Your task to perform on an android device: change the upload size in google photos Image 0: 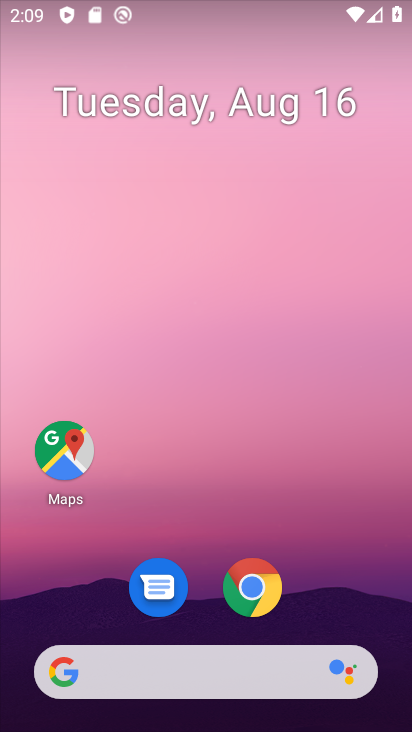
Step 0: drag from (251, 621) to (237, 489)
Your task to perform on an android device: change the upload size in google photos Image 1: 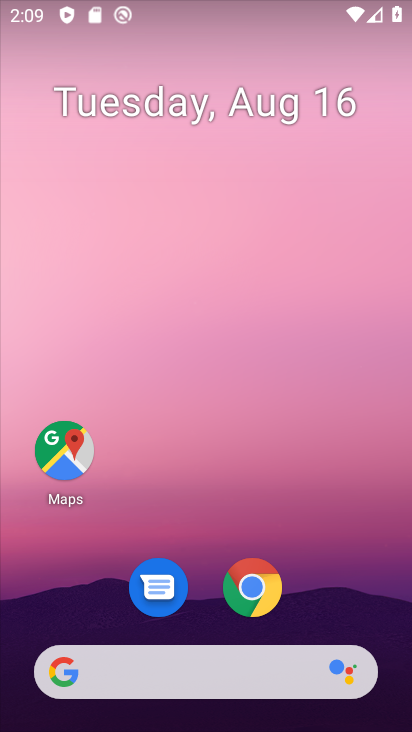
Step 1: drag from (210, 593) to (223, 191)
Your task to perform on an android device: change the upload size in google photos Image 2: 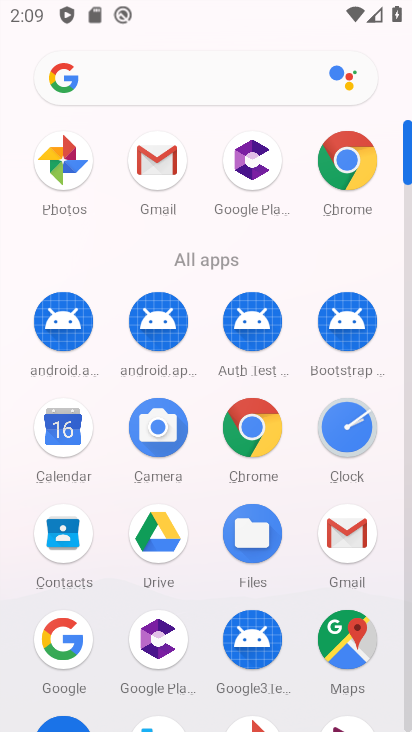
Step 2: drag from (211, 658) to (243, 222)
Your task to perform on an android device: change the upload size in google photos Image 3: 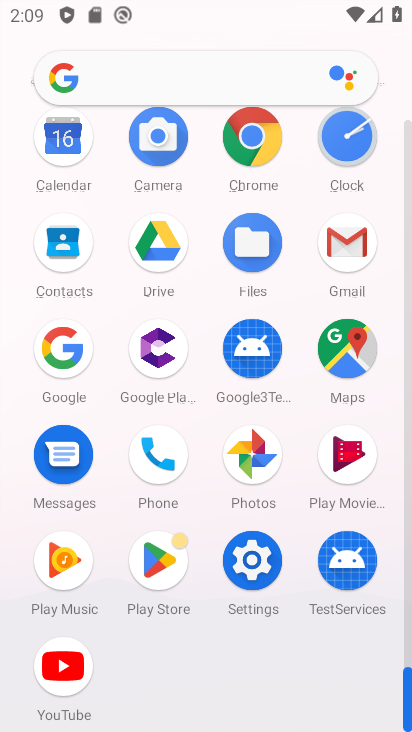
Step 3: click (245, 438)
Your task to perform on an android device: change the upload size in google photos Image 4: 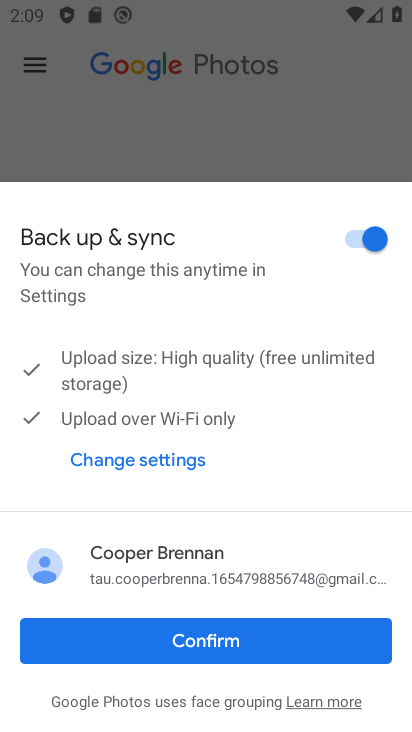
Step 4: click (229, 632)
Your task to perform on an android device: change the upload size in google photos Image 5: 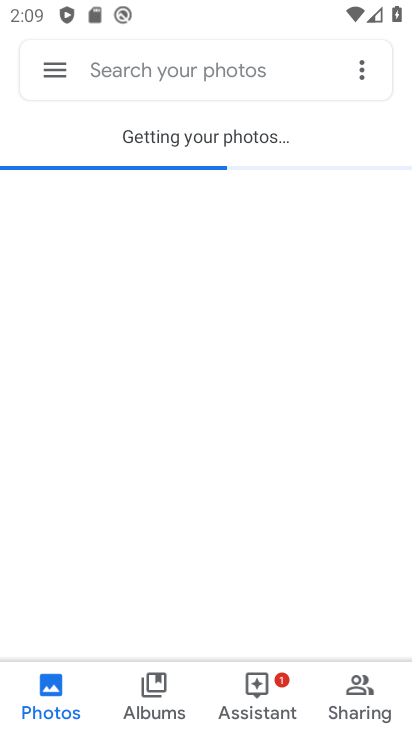
Step 5: click (44, 65)
Your task to perform on an android device: change the upload size in google photos Image 6: 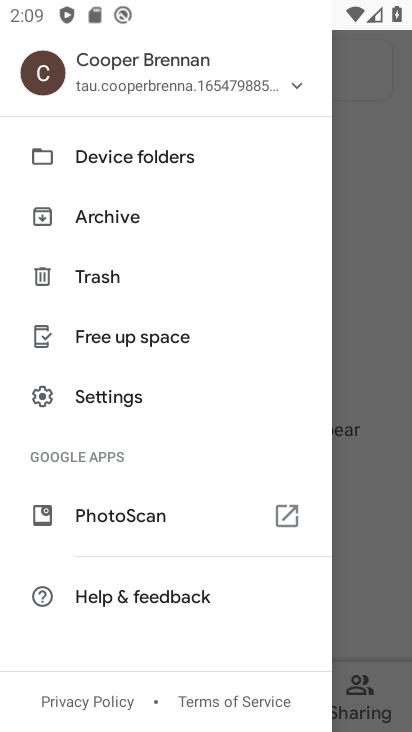
Step 6: click (123, 395)
Your task to perform on an android device: change the upload size in google photos Image 7: 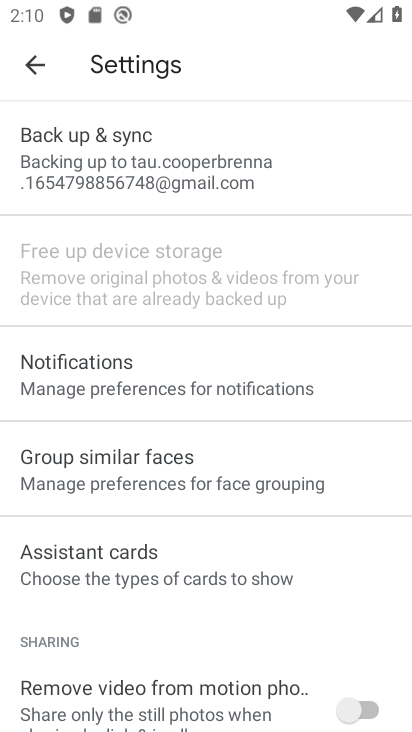
Step 7: click (160, 170)
Your task to perform on an android device: change the upload size in google photos Image 8: 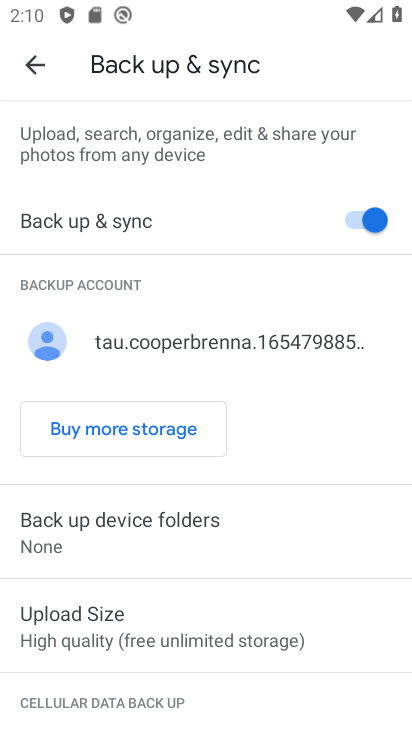
Step 8: click (139, 617)
Your task to perform on an android device: change the upload size in google photos Image 9: 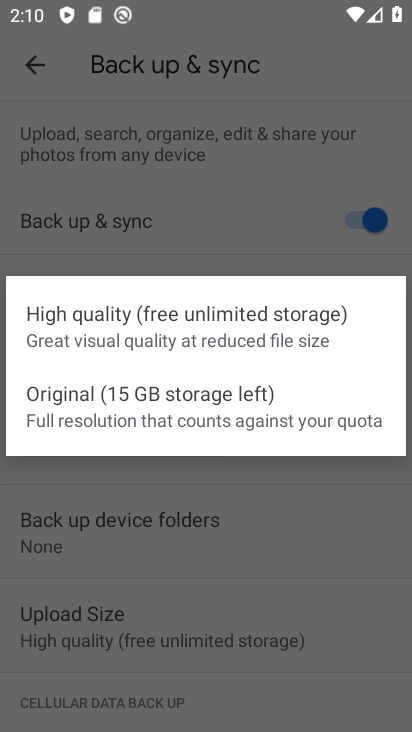
Step 9: click (191, 396)
Your task to perform on an android device: change the upload size in google photos Image 10: 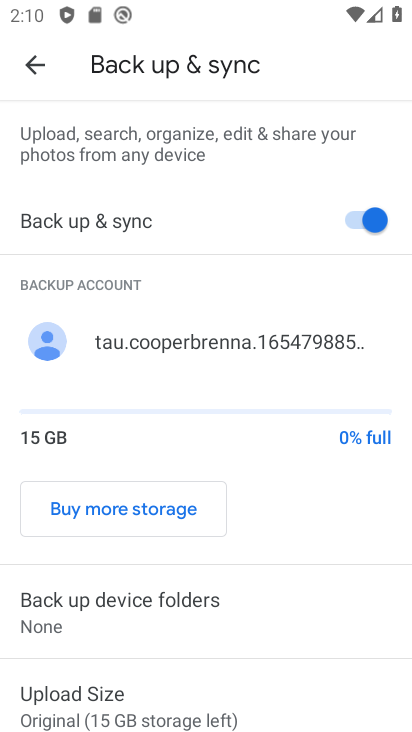
Step 10: task complete